Your task to perform on an android device: Open the map Image 0: 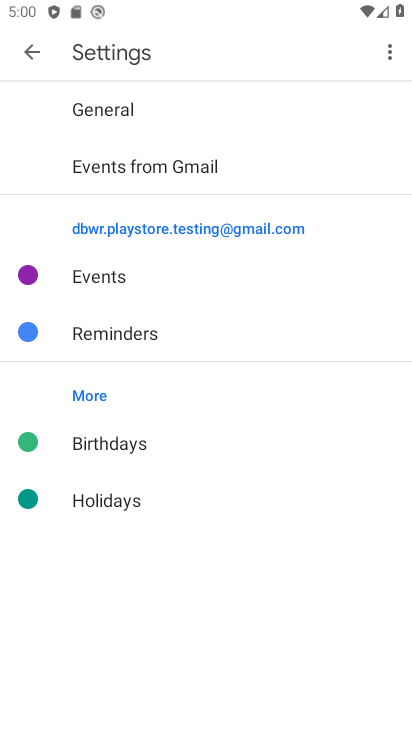
Step 0: press back button
Your task to perform on an android device: Open the map Image 1: 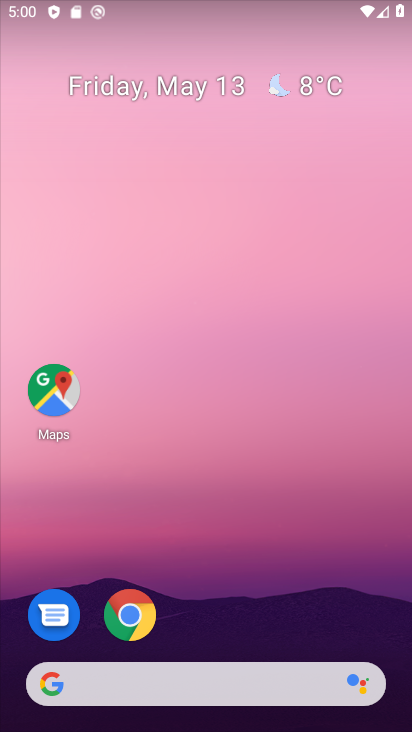
Step 1: click (52, 378)
Your task to perform on an android device: Open the map Image 2: 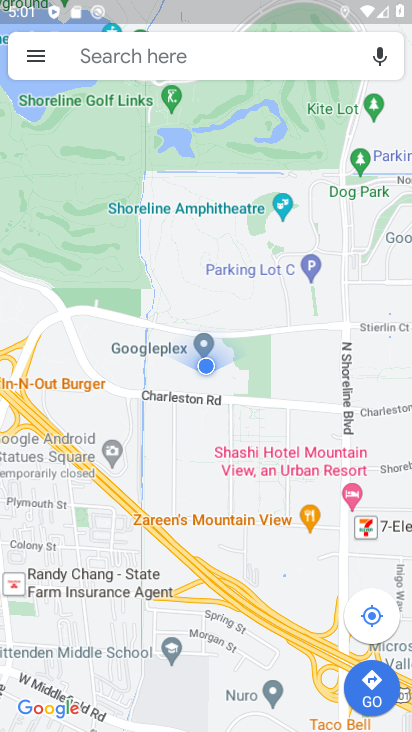
Step 2: task complete